Your task to perform on an android device: toggle translation in the chrome app Image 0: 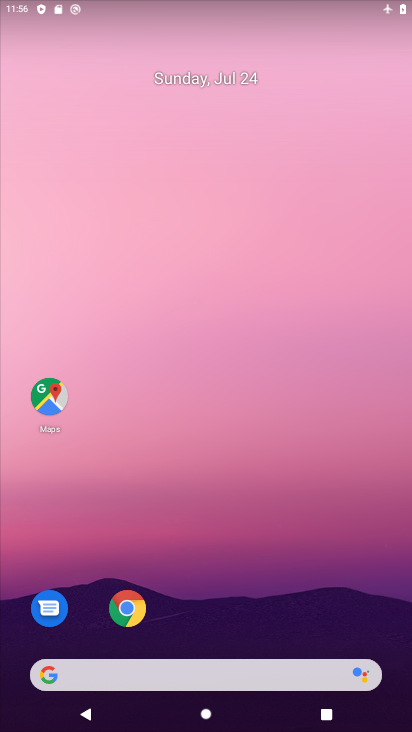
Step 0: click (124, 602)
Your task to perform on an android device: toggle translation in the chrome app Image 1: 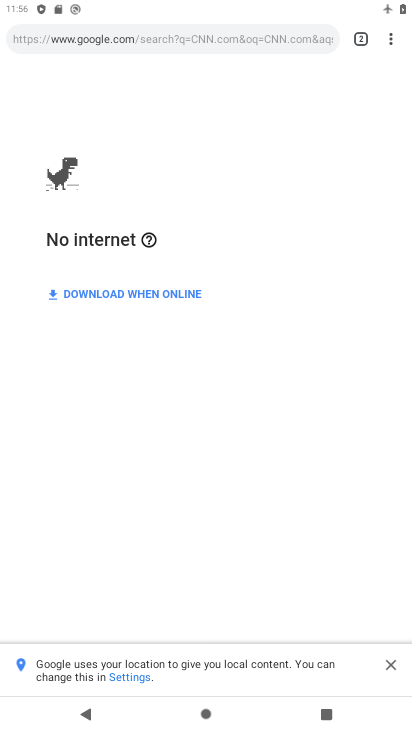
Step 1: click (386, 41)
Your task to perform on an android device: toggle translation in the chrome app Image 2: 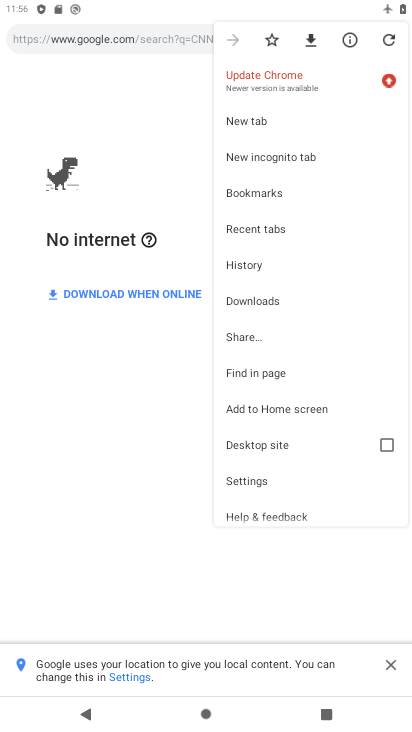
Step 2: click (268, 471)
Your task to perform on an android device: toggle translation in the chrome app Image 3: 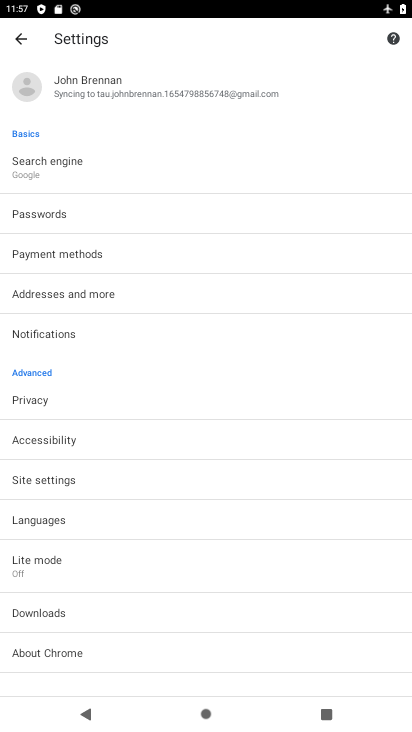
Step 3: drag from (120, 595) to (149, 257)
Your task to perform on an android device: toggle translation in the chrome app Image 4: 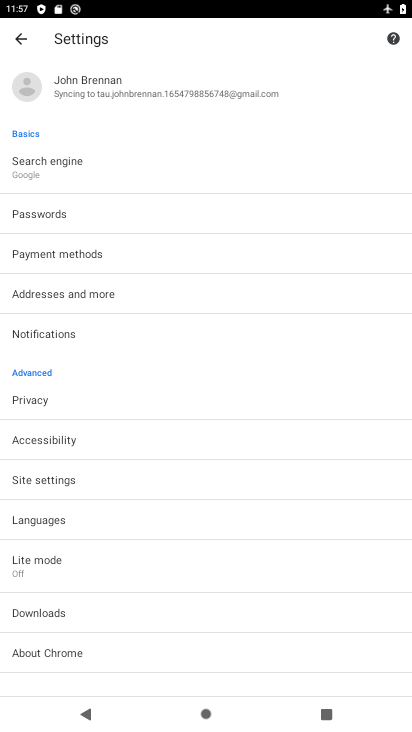
Step 4: click (84, 506)
Your task to perform on an android device: toggle translation in the chrome app Image 5: 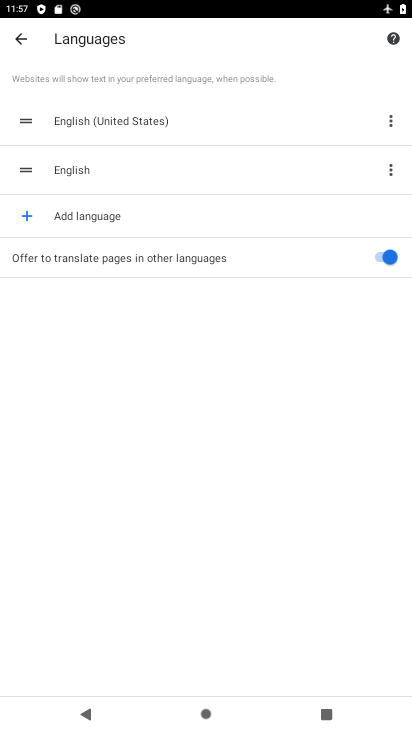
Step 5: click (363, 262)
Your task to perform on an android device: toggle translation in the chrome app Image 6: 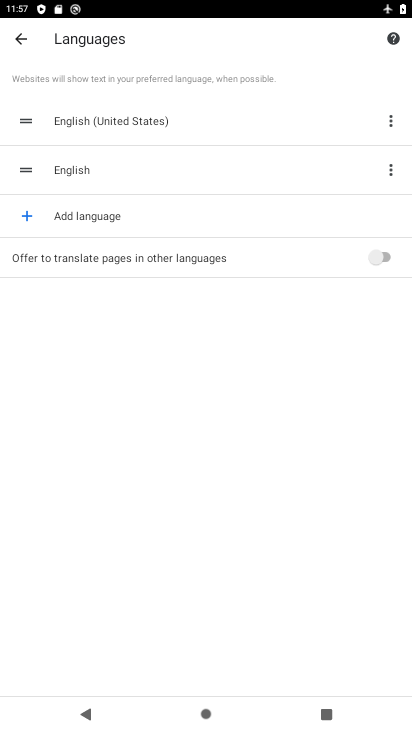
Step 6: task complete